Your task to perform on an android device: Toggle the flashlight Image 0: 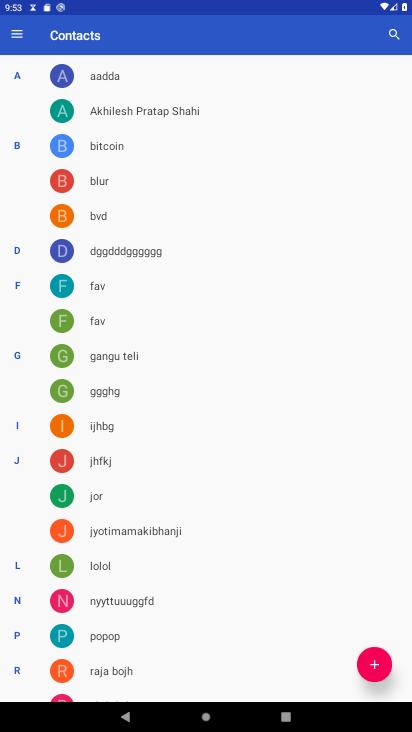
Step 0: press home button
Your task to perform on an android device: Toggle the flashlight Image 1: 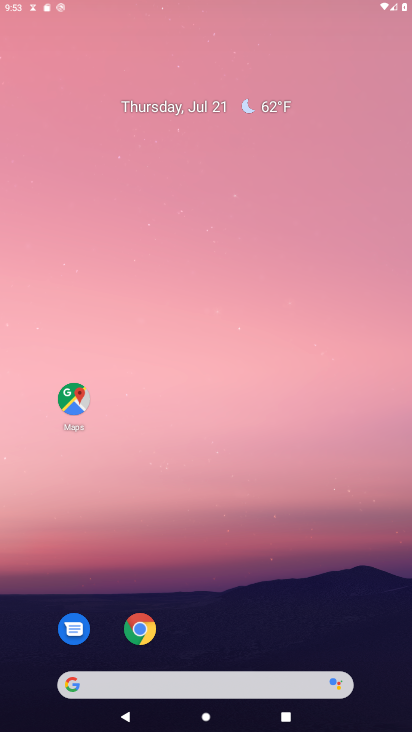
Step 1: drag from (140, 640) to (158, 308)
Your task to perform on an android device: Toggle the flashlight Image 2: 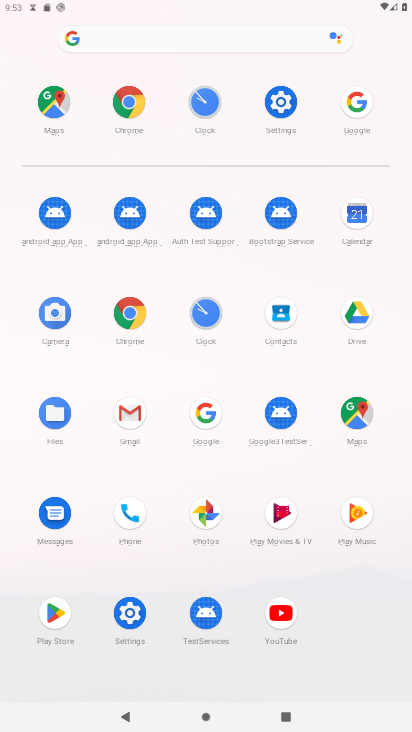
Step 2: click (278, 104)
Your task to perform on an android device: Toggle the flashlight Image 3: 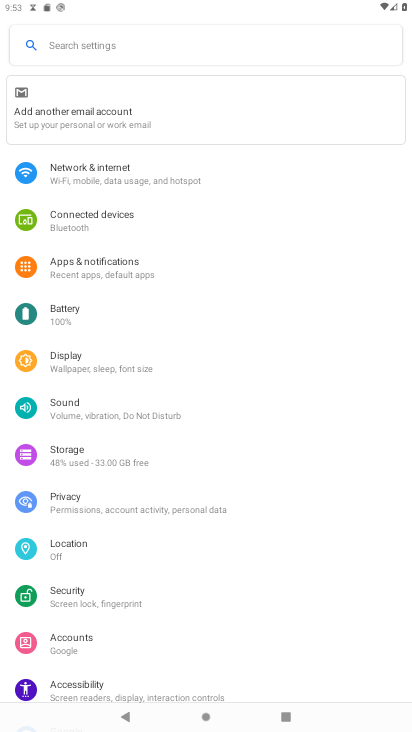
Step 3: task complete